Your task to perform on an android device: open app "YouTube Kids" (install if not already installed), go to login, and select forgot password Image 0: 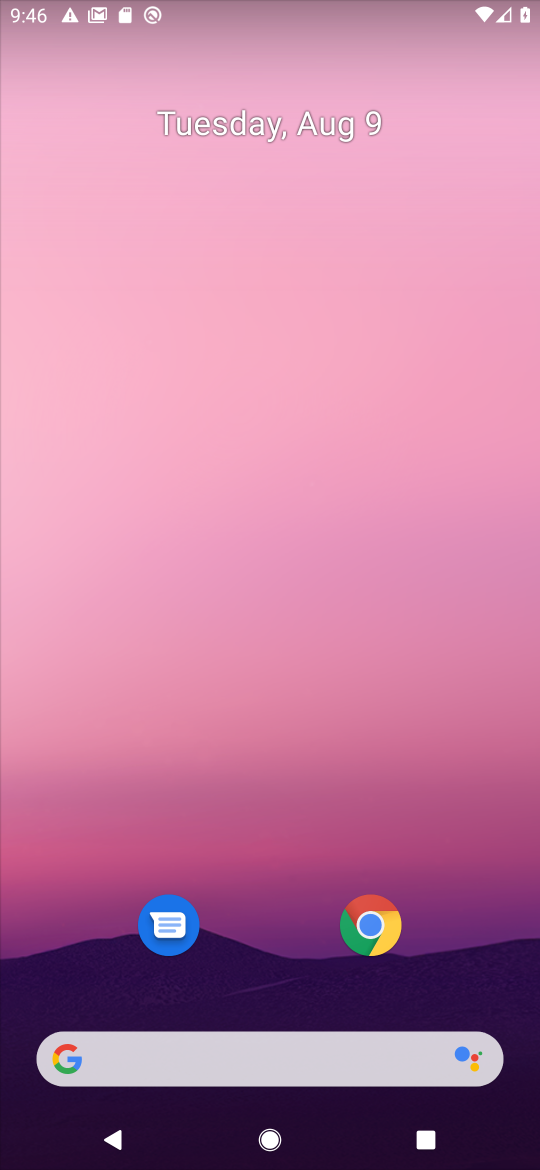
Step 0: drag from (260, 983) to (200, 475)
Your task to perform on an android device: open app "YouTube Kids" (install if not already installed), go to login, and select forgot password Image 1: 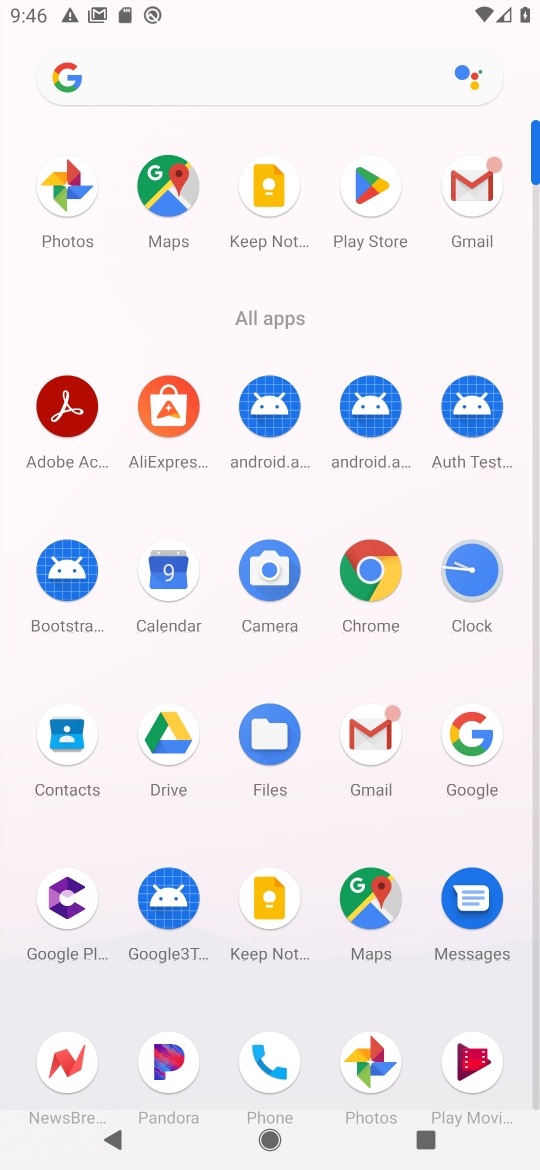
Step 1: click (377, 189)
Your task to perform on an android device: open app "YouTube Kids" (install if not already installed), go to login, and select forgot password Image 2: 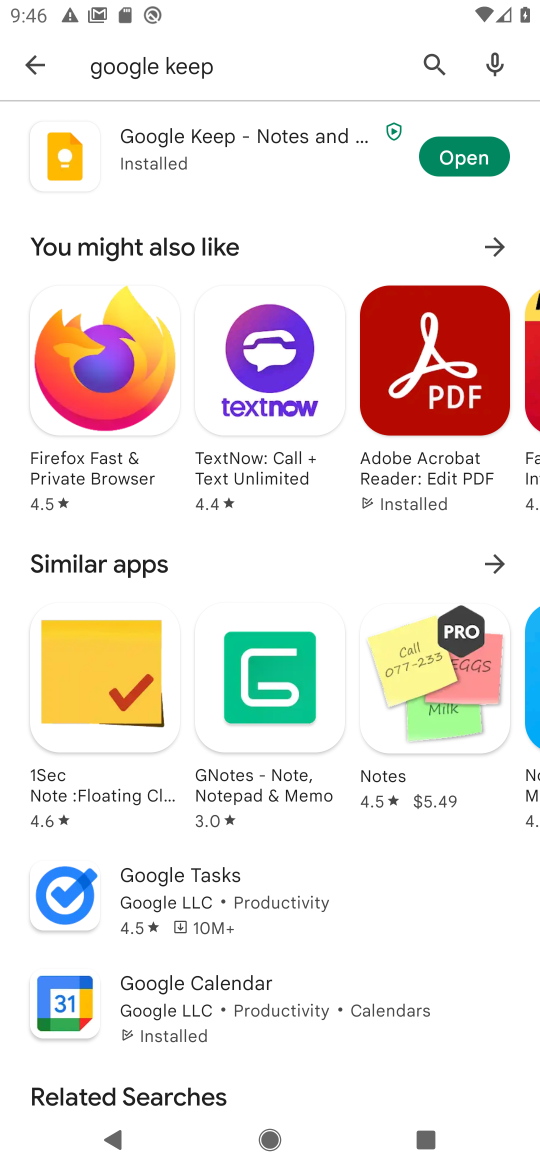
Step 2: click (33, 75)
Your task to perform on an android device: open app "YouTube Kids" (install if not already installed), go to login, and select forgot password Image 3: 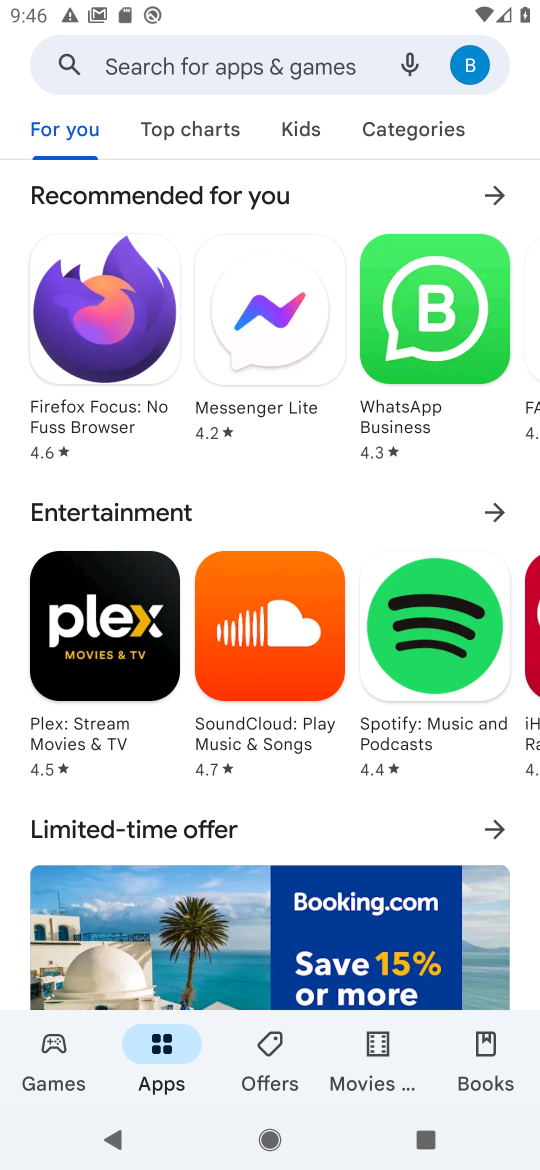
Step 3: click (194, 54)
Your task to perform on an android device: open app "YouTube Kids" (install if not already installed), go to login, and select forgot password Image 4: 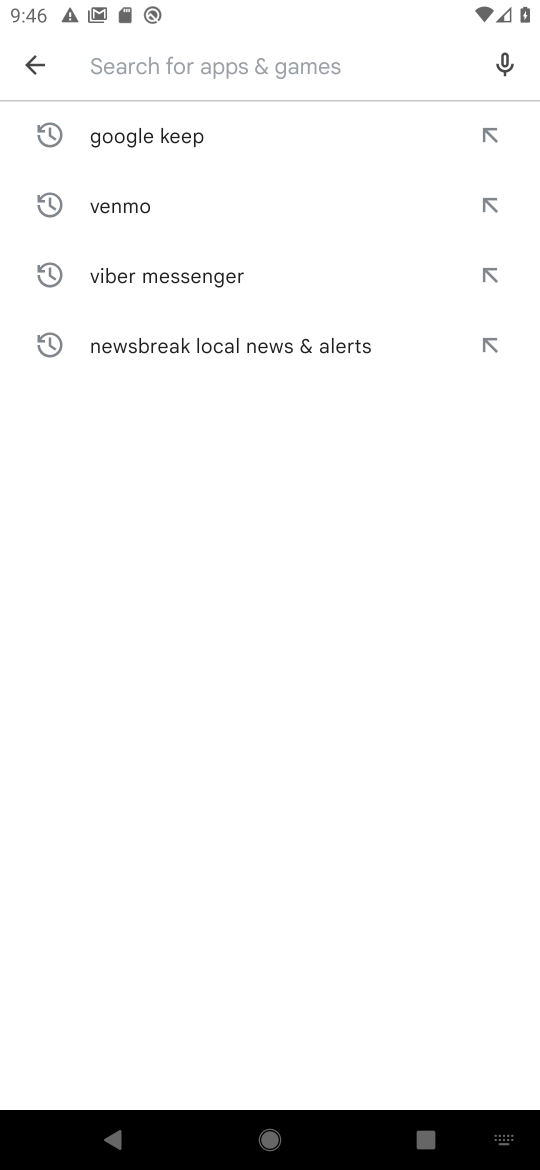
Step 4: type "YouTube Kids"
Your task to perform on an android device: open app "YouTube Kids" (install if not already installed), go to login, and select forgot password Image 5: 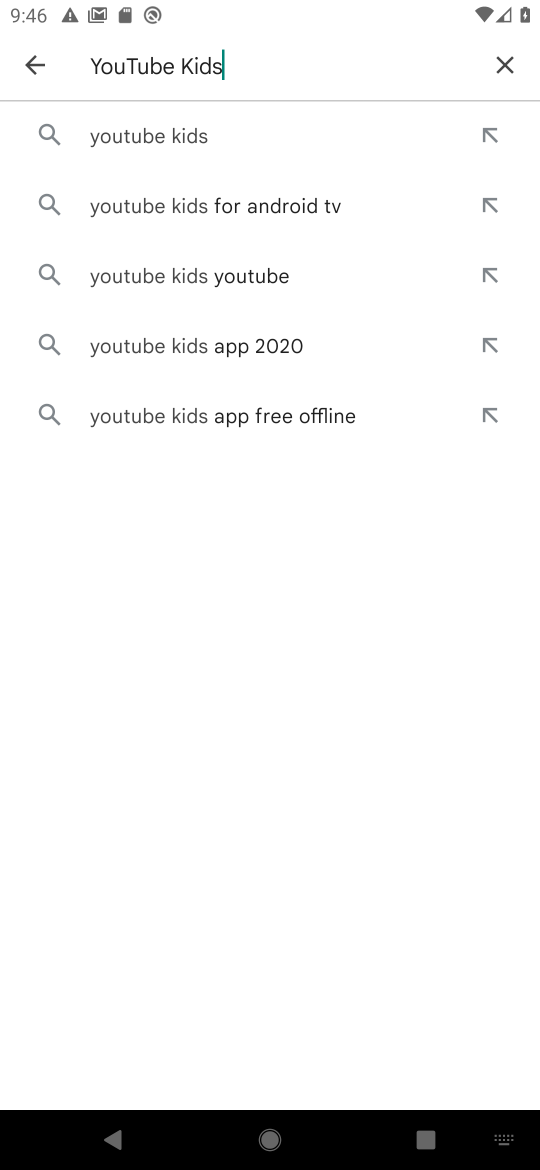
Step 5: click (173, 136)
Your task to perform on an android device: open app "YouTube Kids" (install if not already installed), go to login, and select forgot password Image 6: 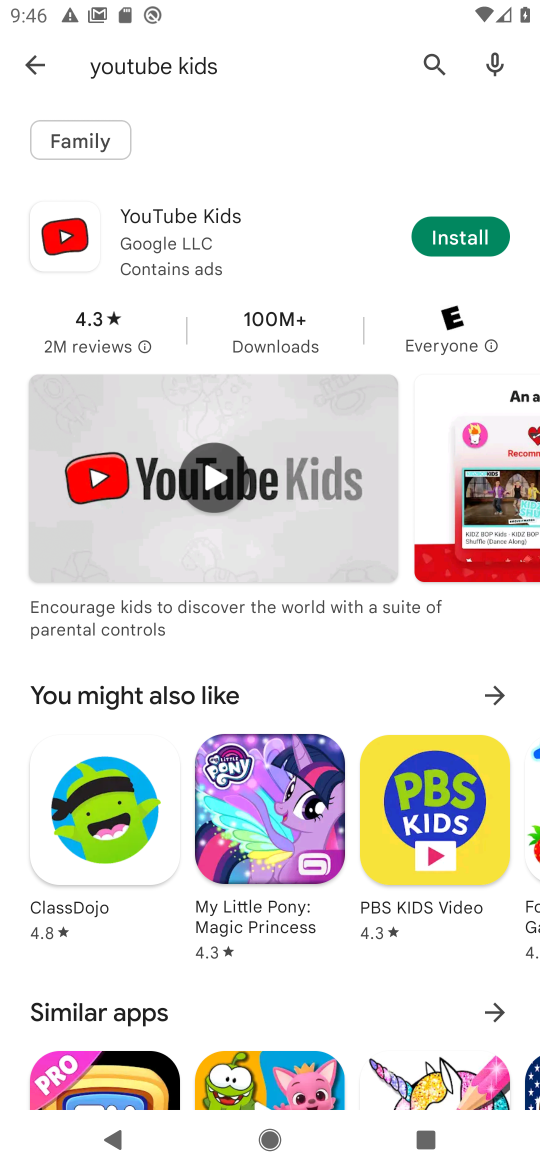
Step 6: click (458, 226)
Your task to perform on an android device: open app "YouTube Kids" (install if not already installed), go to login, and select forgot password Image 7: 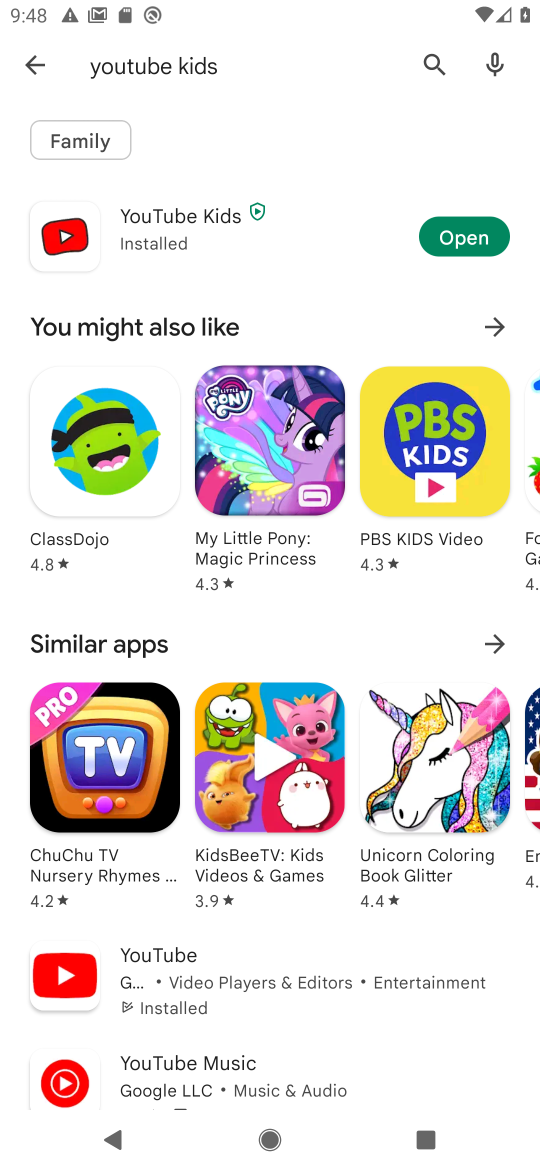
Step 7: click (454, 238)
Your task to perform on an android device: open app "YouTube Kids" (install if not already installed), go to login, and select forgot password Image 8: 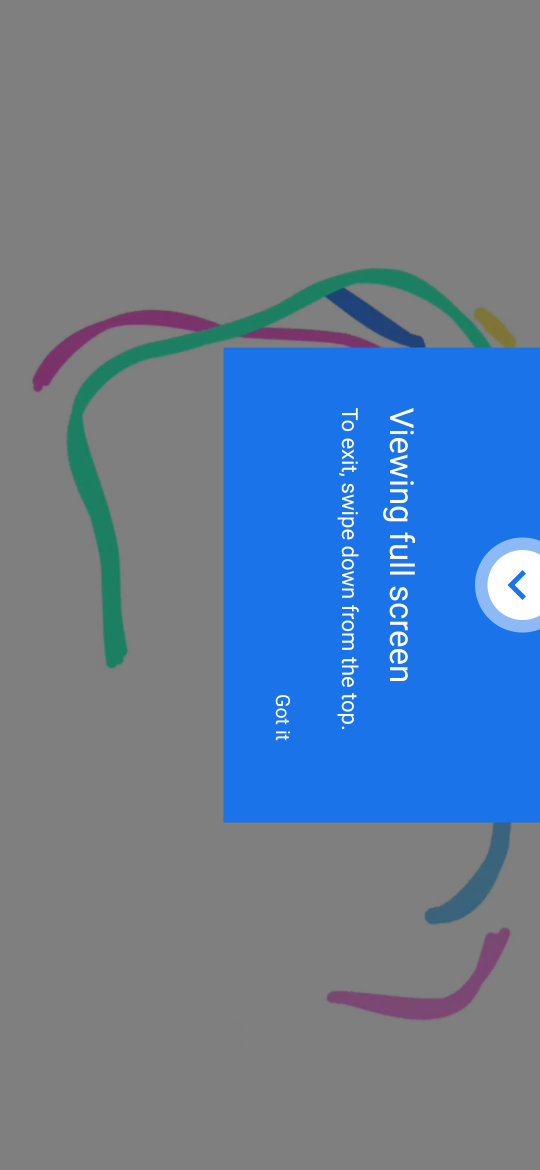
Step 8: click (284, 725)
Your task to perform on an android device: open app "YouTube Kids" (install if not already installed), go to login, and select forgot password Image 9: 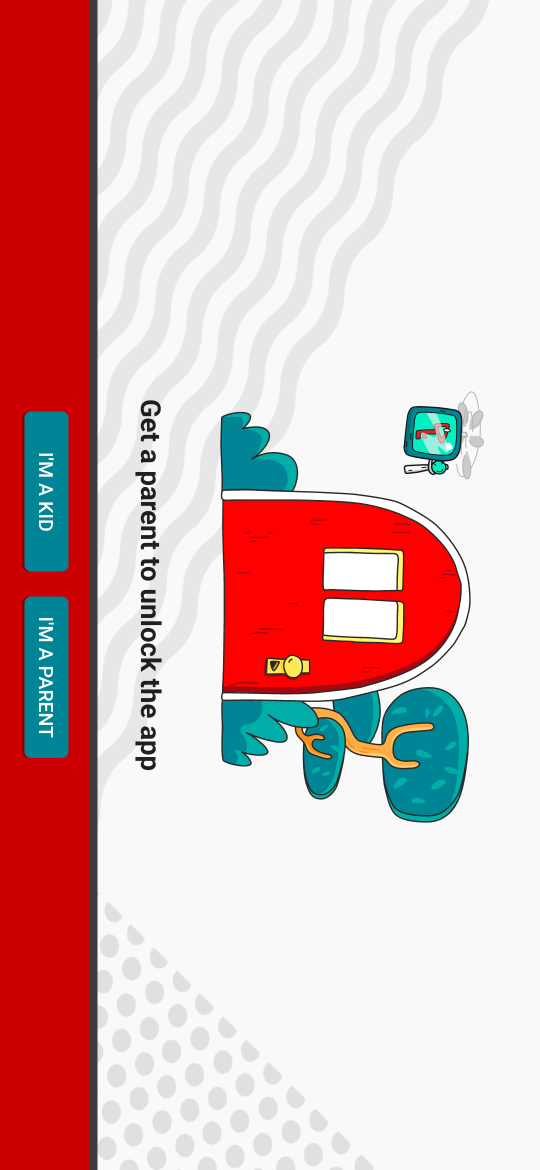
Step 9: task complete